Your task to perform on an android device: open device folders in google photos Image 0: 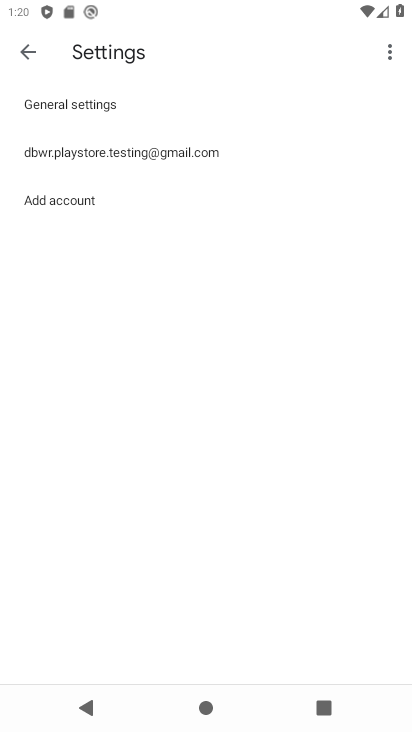
Step 0: press home button
Your task to perform on an android device: open device folders in google photos Image 1: 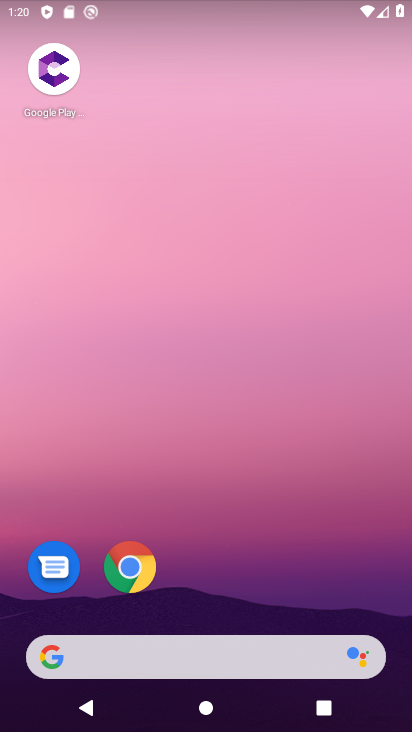
Step 1: drag from (228, 491) to (216, 90)
Your task to perform on an android device: open device folders in google photos Image 2: 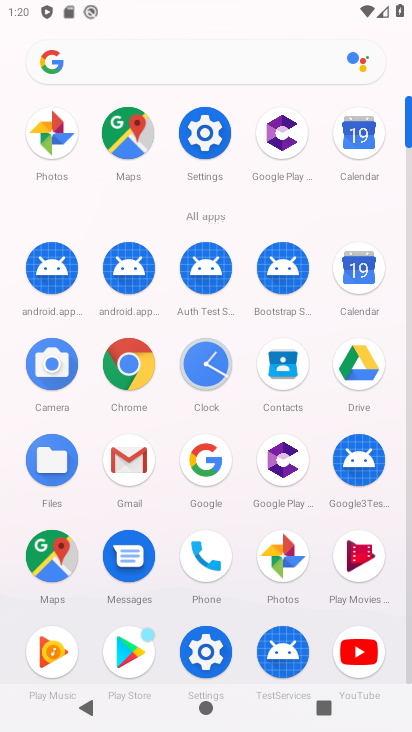
Step 2: click (292, 573)
Your task to perform on an android device: open device folders in google photos Image 3: 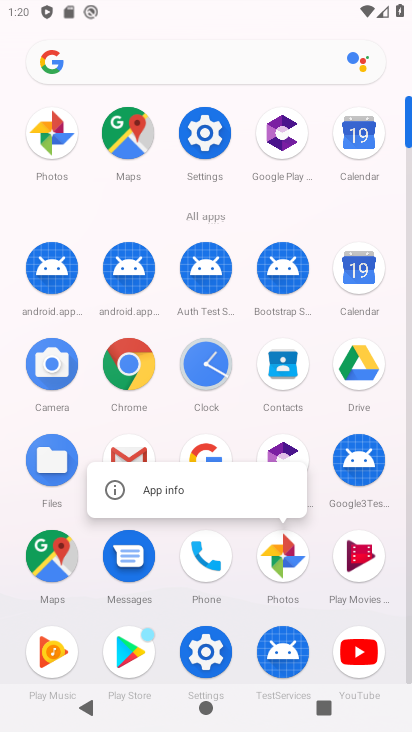
Step 3: click (289, 564)
Your task to perform on an android device: open device folders in google photos Image 4: 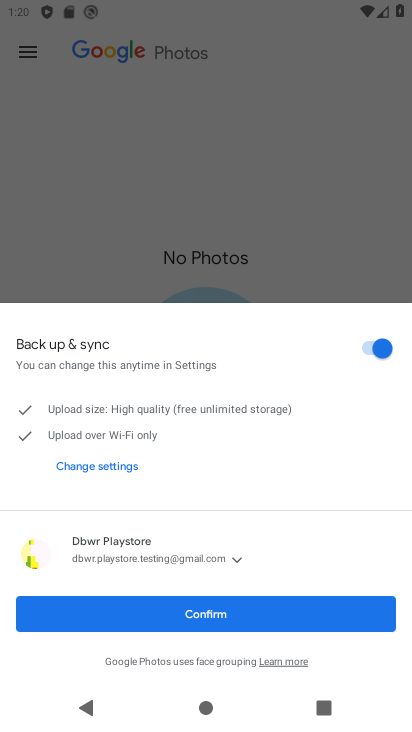
Step 4: click (222, 616)
Your task to perform on an android device: open device folders in google photos Image 5: 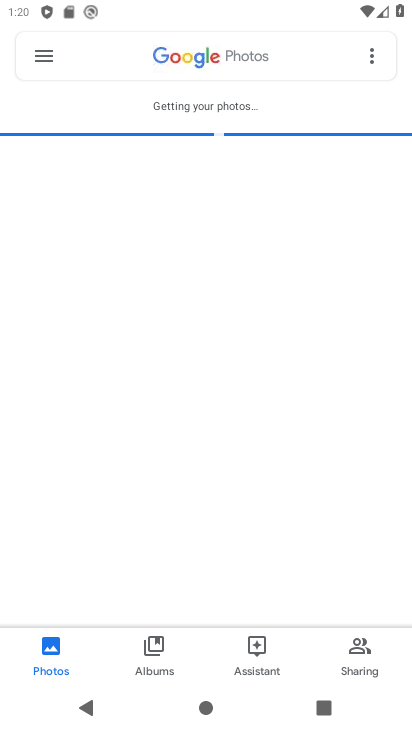
Step 5: click (48, 60)
Your task to perform on an android device: open device folders in google photos Image 6: 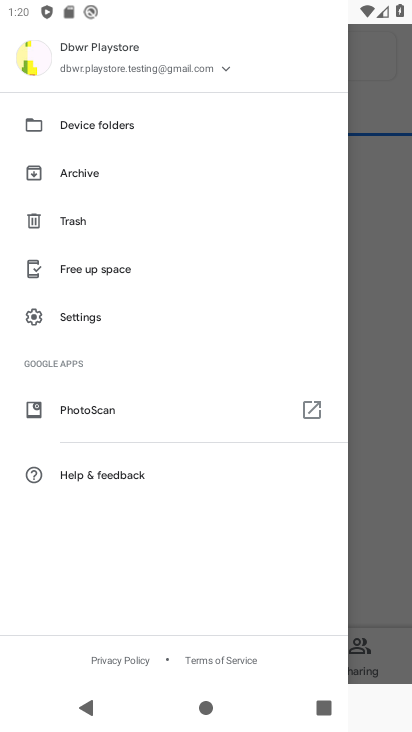
Step 6: click (61, 122)
Your task to perform on an android device: open device folders in google photos Image 7: 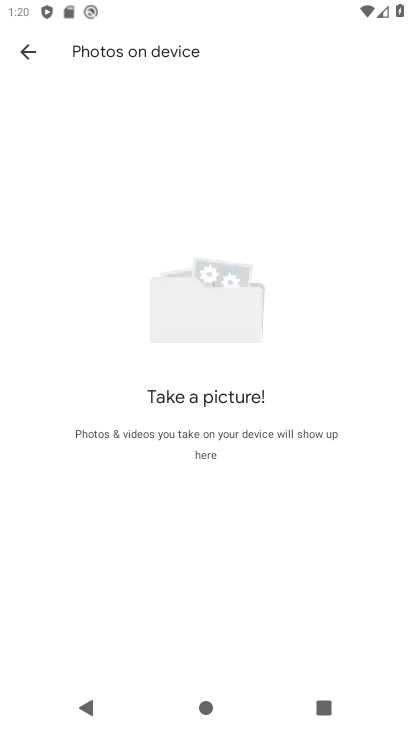
Step 7: task complete